Your task to perform on an android device: choose inbox layout in the gmail app Image 0: 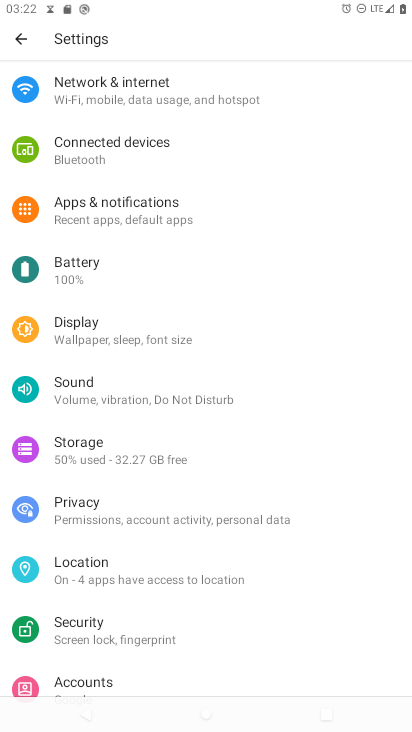
Step 0: press home button
Your task to perform on an android device: choose inbox layout in the gmail app Image 1: 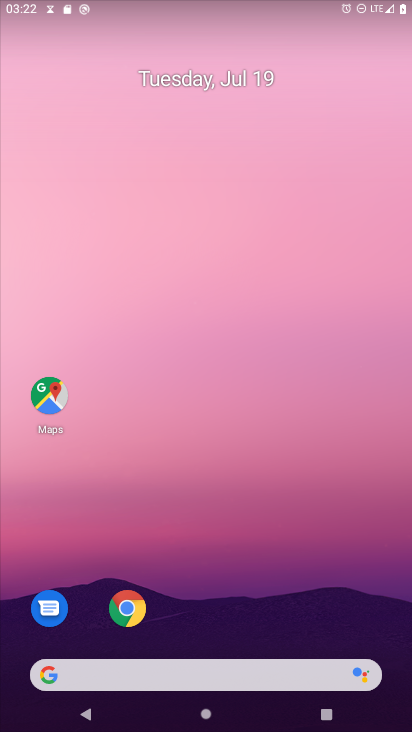
Step 1: drag from (188, 649) to (298, 107)
Your task to perform on an android device: choose inbox layout in the gmail app Image 2: 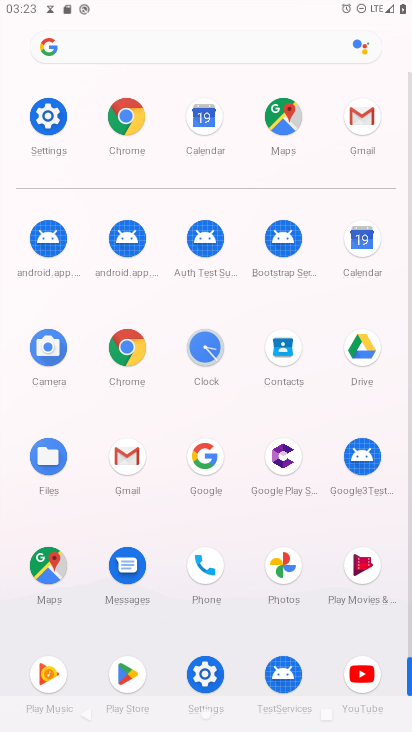
Step 2: click (122, 458)
Your task to perform on an android device: choose inbox layout in the gmail app Image 3: 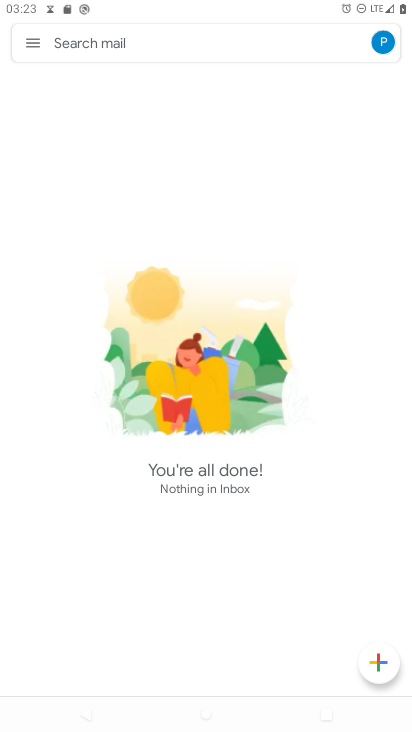
Step 3: click (18, 35)
Your task to perform on an android device: choose inbox layout in the gmail app Image 4: 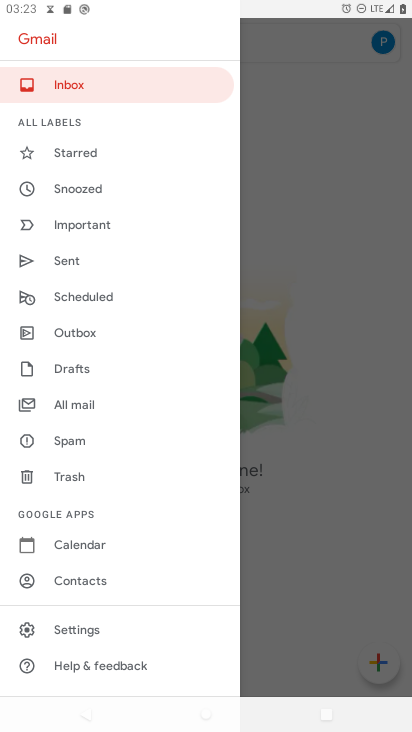
Step 4: click (117, 632)
Your task to perform on an android device: choose inbox layout in the gmail app Image 5: 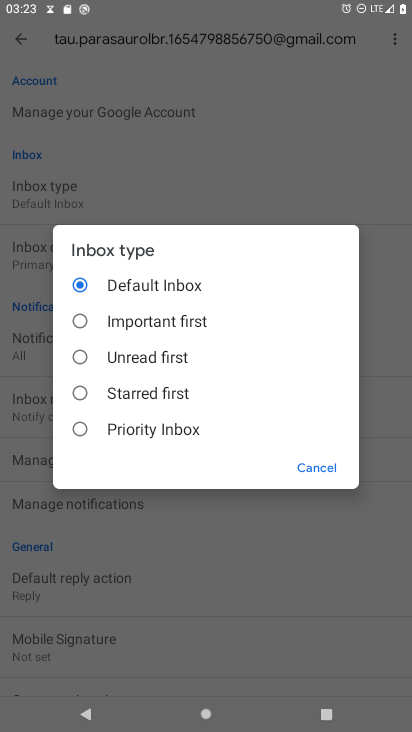
Step 5: click (84, 323)
Your task to perform on an android device: choose inbox layout in the gmail app Image 6: 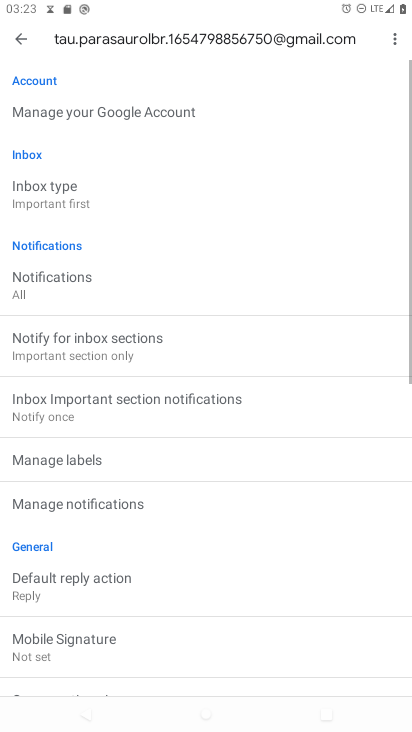
Step 6: task complete